Your task to perform on an android device: Show me the alarms in the clock app Image 0: 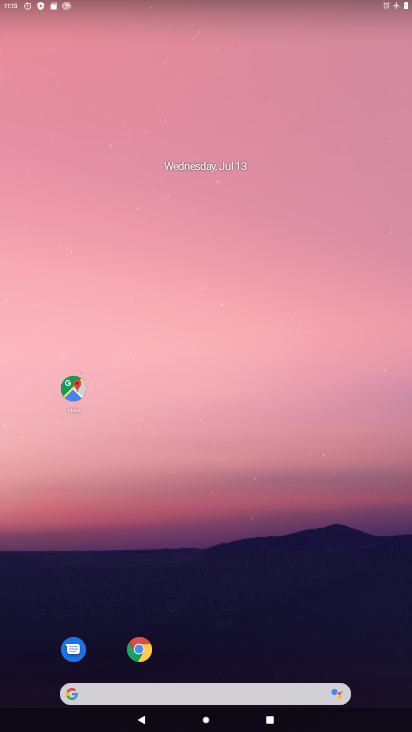
Step 0: drag from (218, 688) to (225, 228)
Your task to perform on an android device: Show me the alarms in the clock app Image 1: 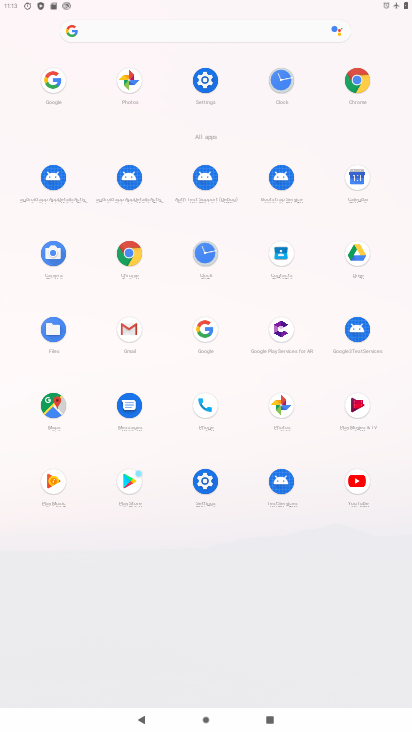
Step 1: click (205, 254)
Your task to perform on an android device: Show me the alarms in the clock app Image 2: 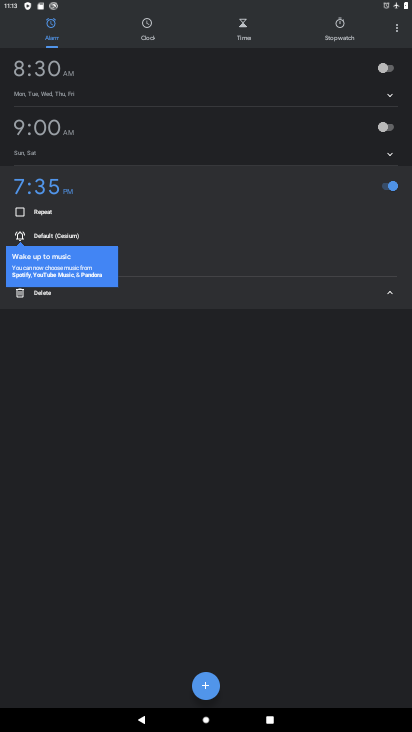
Step 2: click (208, 683)
Your task to perform on an android device: Show me the alarms in the clock app Image 3: 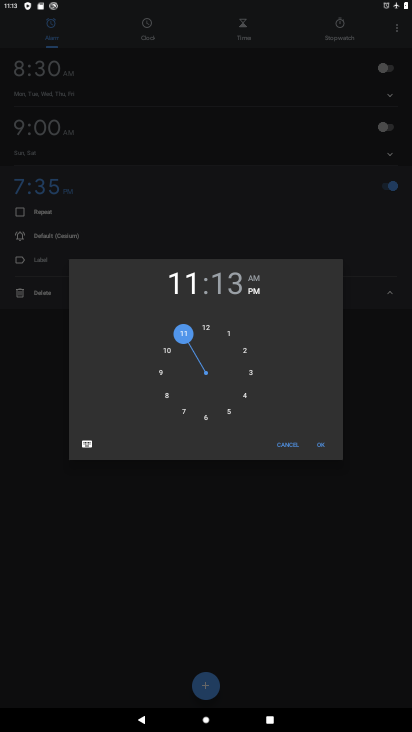
Step 3: click (203, 419)
Your task to perform on an android device: Show me the alarms in the clock app Image 4: 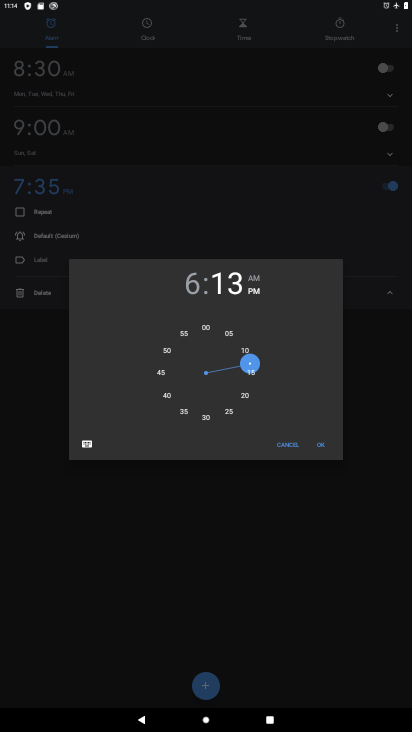
Step 4: click (183, 414)
Your task to perform on an android device: Show me the alarms in the clock app Image 5: 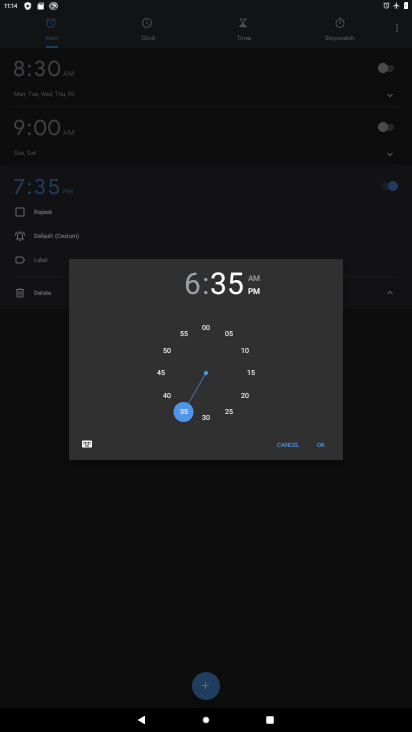
Step 5: click (322, 449)
Your task to perform on an android device: Show me the alarms in the clock app Image 6: 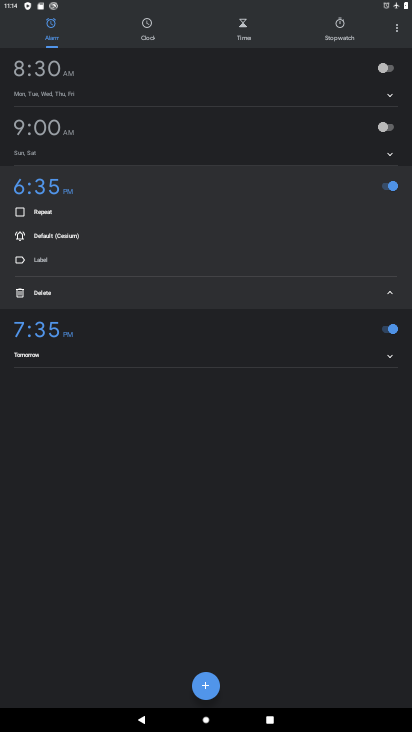
Step 6: task complete